Your task to perform on an android device: See recent photos Image 0: 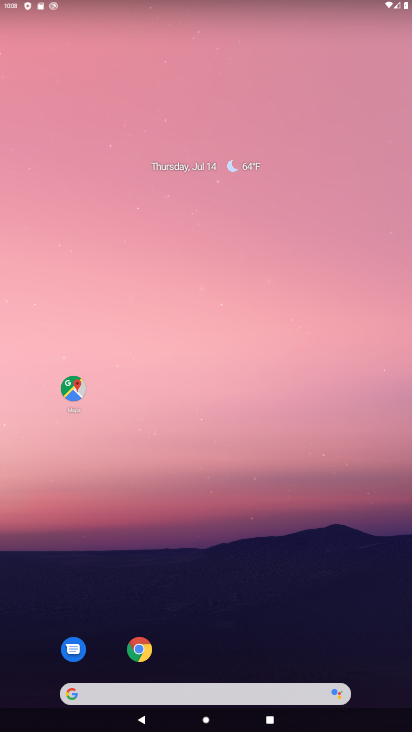
Step 0: drag from (273, 616) to (302, 72)
Your task to perform on an android device: See recent photos Image 1: 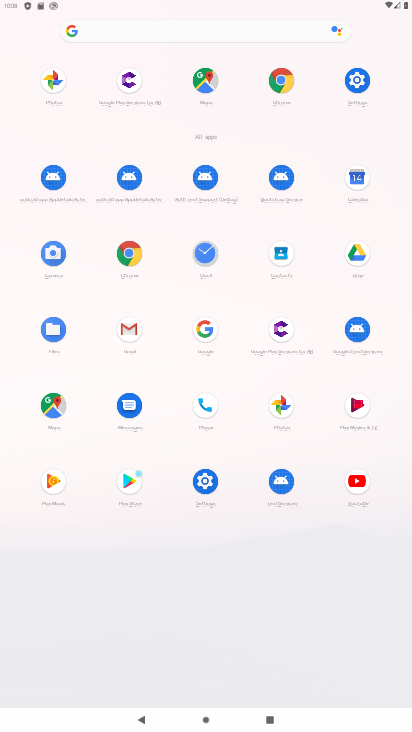
Step 1: click (286, 401)
Your task to perform on an android device: See recent photos Image 2: 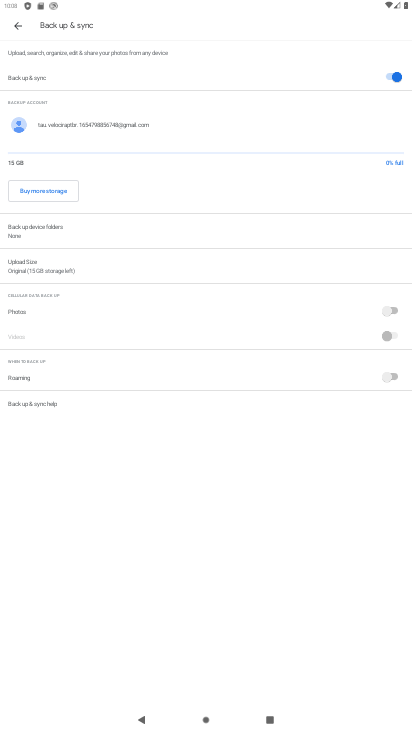
Step 2: click (17, 22)
Your task to perform on an android device: See recent photos Image 3: 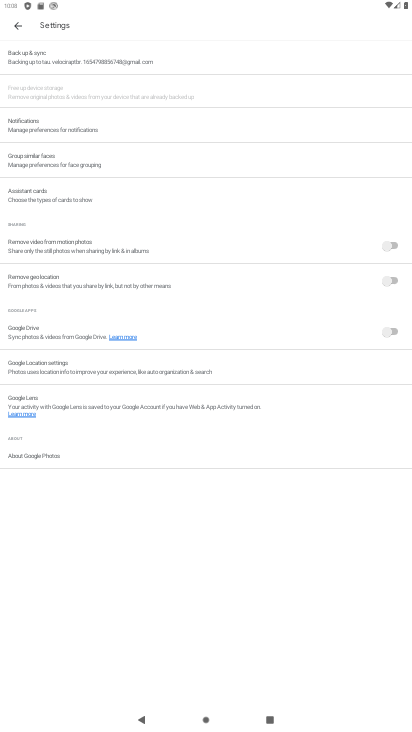
Step 3: click (17, 22)
Your task to perform on an android device: See recent photos Image 4: 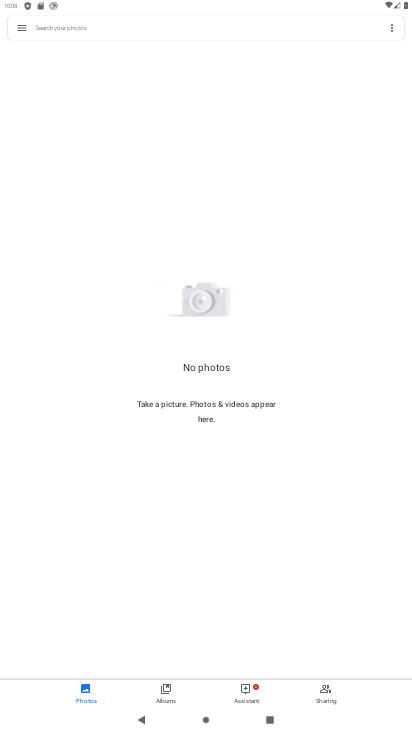
Step 4: click (89, 680)
Your task to perform on an android device: See recent photos Image 5: 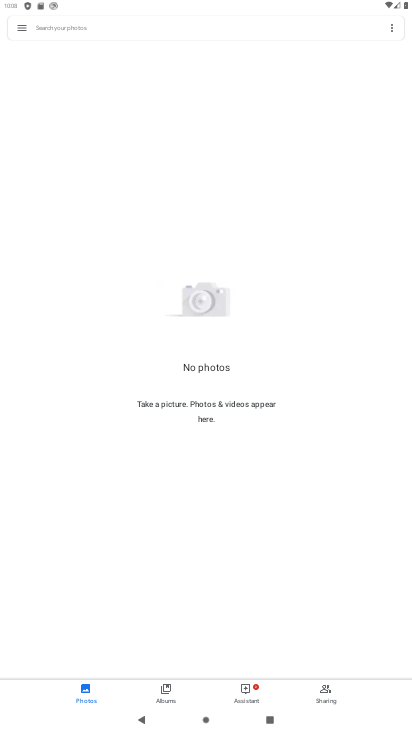
Step 5: task complete